Your task to perform on an android device: Search for Italian restaurants on Maps Image 0: 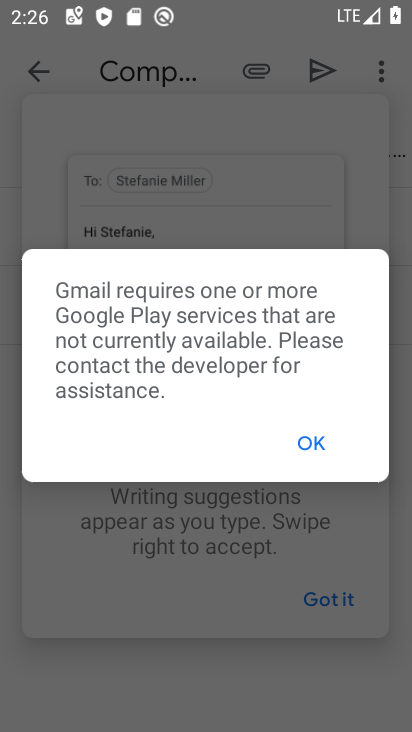
Step 0: press home button
Your task to perform on an android device: Search for Italian restaurants on Maps Image 1: 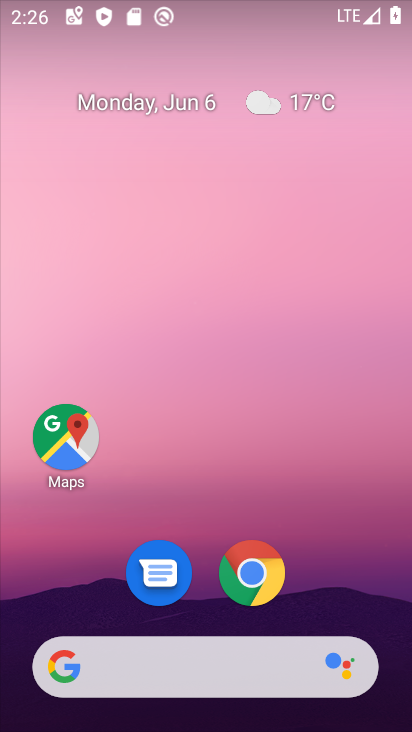
Step 1: drag from (370, 591) to (368, 194)
Your task to perform on an android device: Search for Italian restaurants on Maps Image 2: 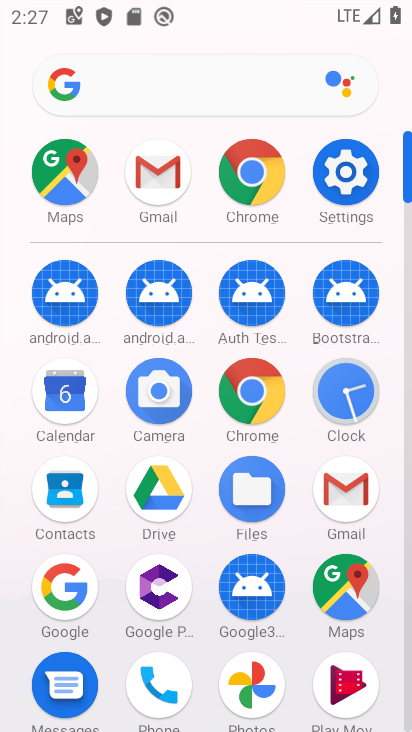
Step 2: click (349, 578)
Your task to perform on an android device: Search for Italian restaurants on Maps Image 3: 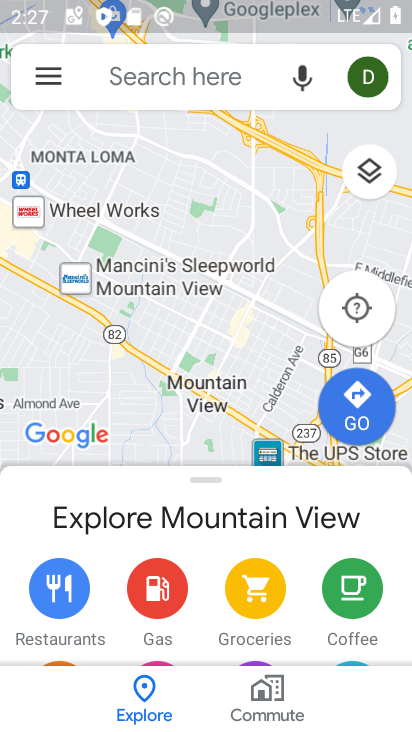
Step 3: click (184, 86)
Your task to perform on an android device: Search for Italian restaurants on Maps Image 4: 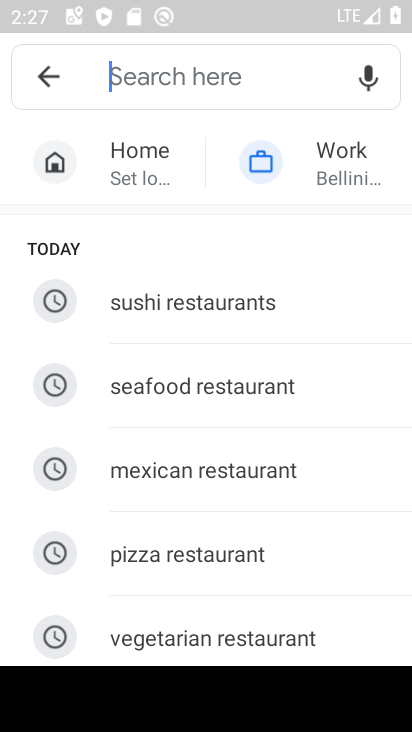
Step 4: type "italian restaurants"
Your task to perform on an android device: Search for Italian restaurants on Maps Image 5: 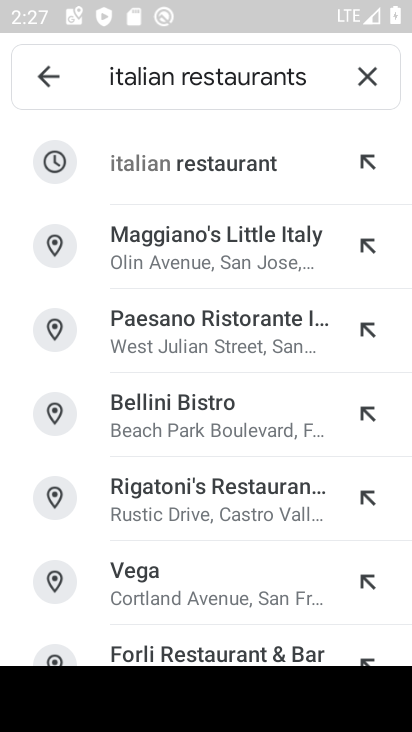
Step 5: click (275, 165)
Your task to perform on an android device: Search for Italian restaurants on Maps Image 6: 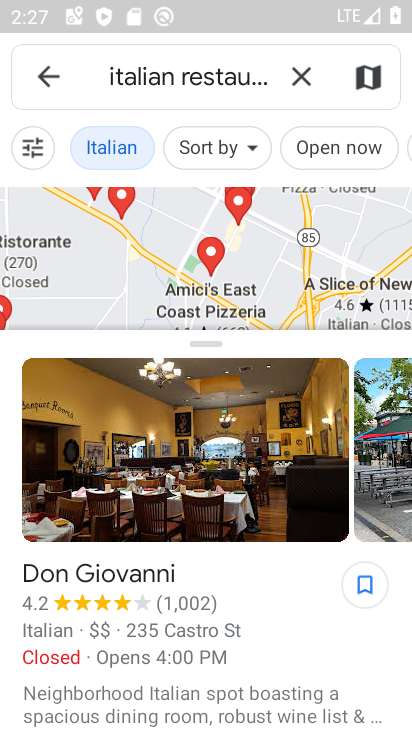
Step 6: task complete